Your task to perform on an android device: Open notification settings Image 0: 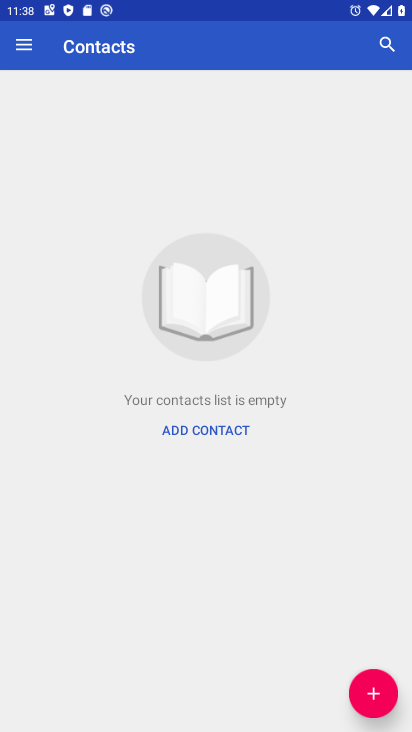
Step 0: press home button
Your task to perform on an android device: Open notification settings Image 1: 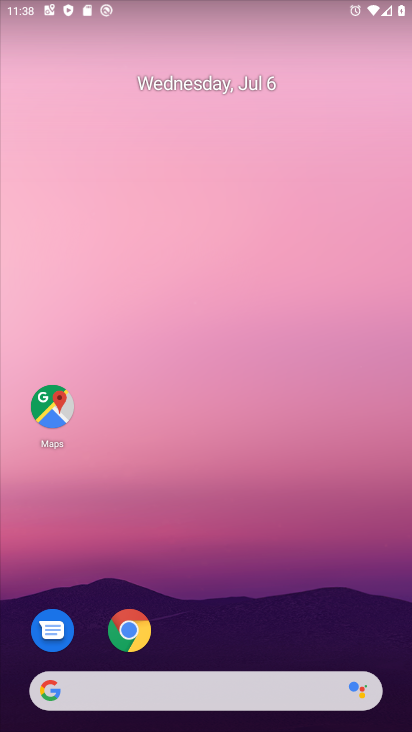
Step 1: drag from (223, 632) to (191, 60)
Your task to perform on an android device: Open notification settings Image 2: 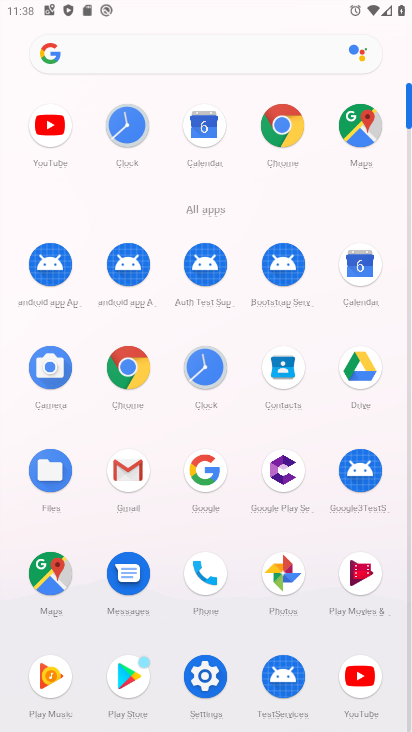
Step 2: click (202, 676)
Your task to perform on an android device: Open notification settings Image 3: 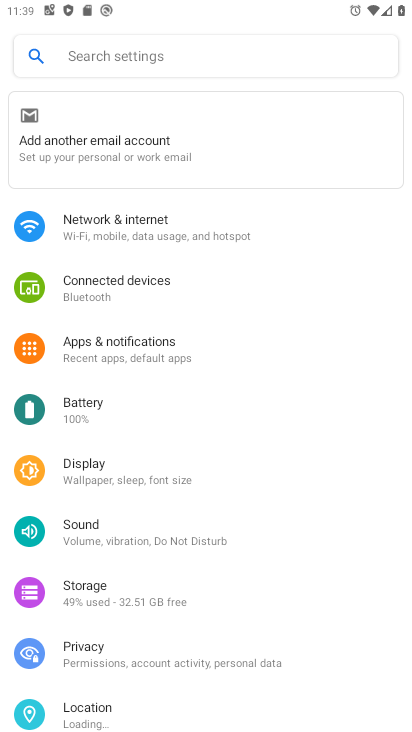
Step 3: click (236, 340)
Your task to perform on an android device: Open notification settings Image 4: 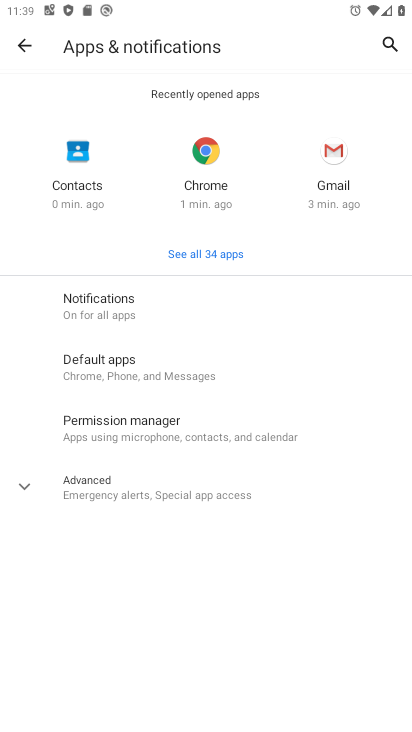
Step 4: click (207, 315)
Your task to perform on an android device: Open notification settings Image 5: 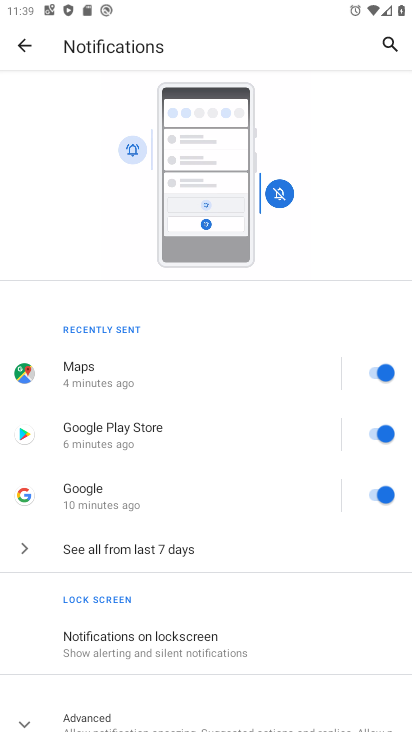
Step 5: drag from (252, 651) to (216, 208)
Your task to perform on an android device: Open notification settings Image 6: 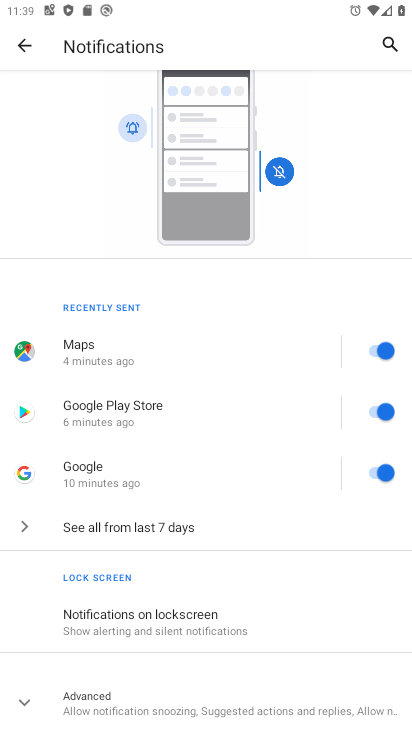
Step 6: click (256, 707)
Your task to perform on an android device: Open notification settings Image 7: 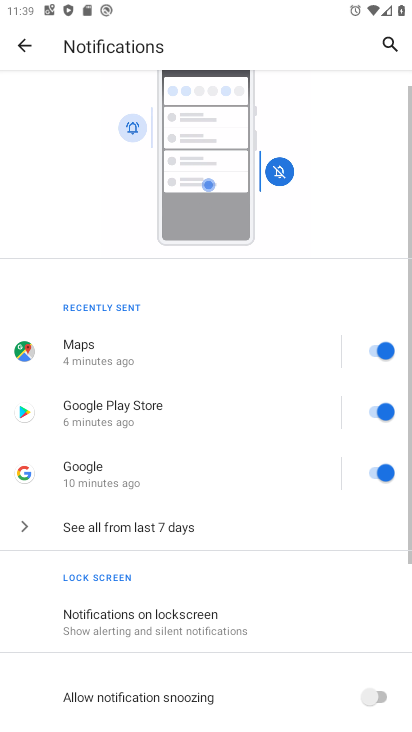
Step 7: task complete